Your task to perform on an android device: Open the calendar and show me this week's events? Image 0: 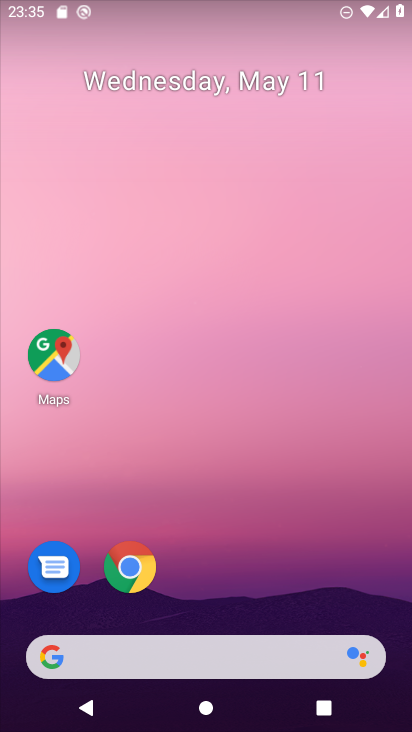
Step 0: drag from (156, 544) to (222, 139)
Your task to perform on an android device: Open the calendar and show me this week's events? Image 1: 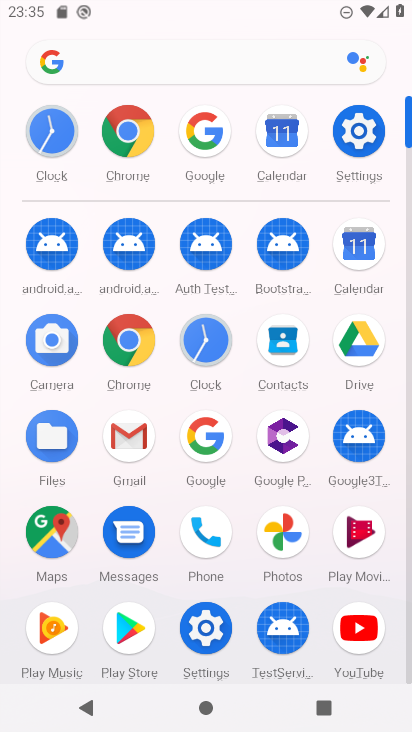
Step 1: click (346, 251)
Your task to perform on an android device: Open the calendar and show me this week's events? Image 2: 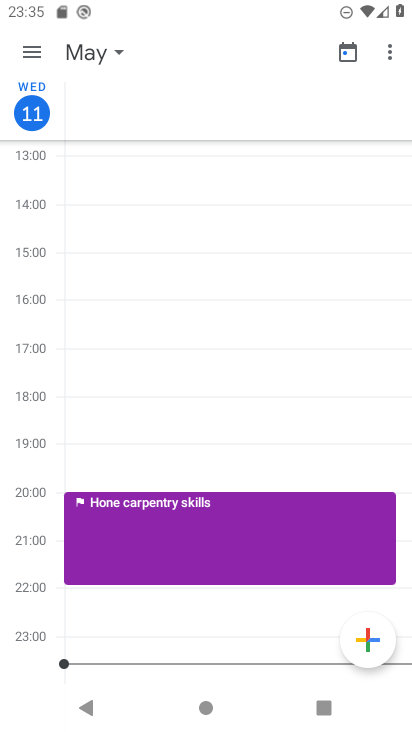
Step 2: task complete